Your task to perform on an android device: Go to Wikipedia Image 0: 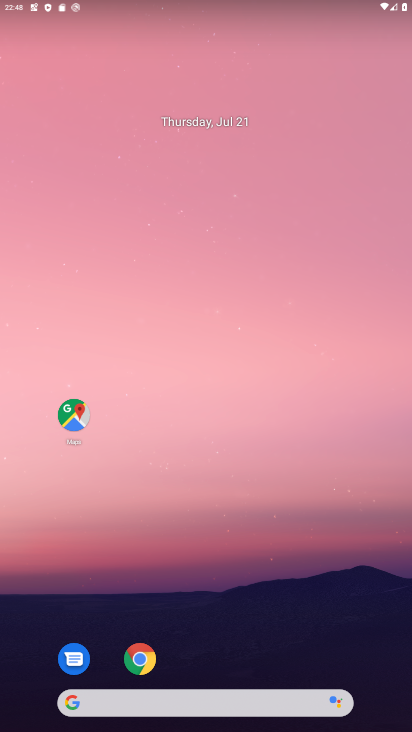
Step 0: drag from (270, 572) to (129, 34)
Your task to perform on an android device: Go to Wikipedia Image 1: 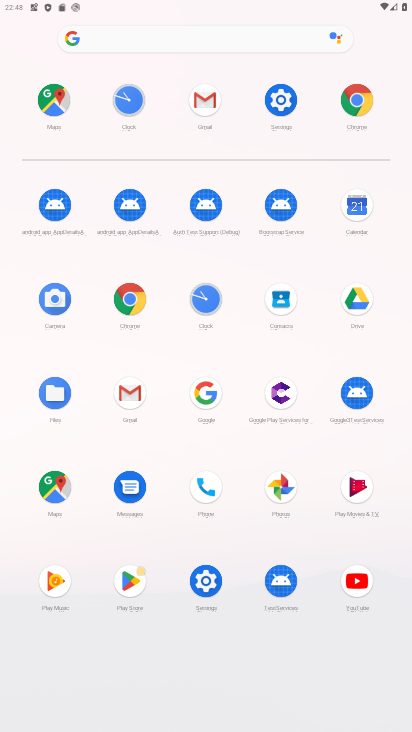
Step 1: click (356, 96)
Your task to perform on an android device: Go to Wikipedia Image 2: 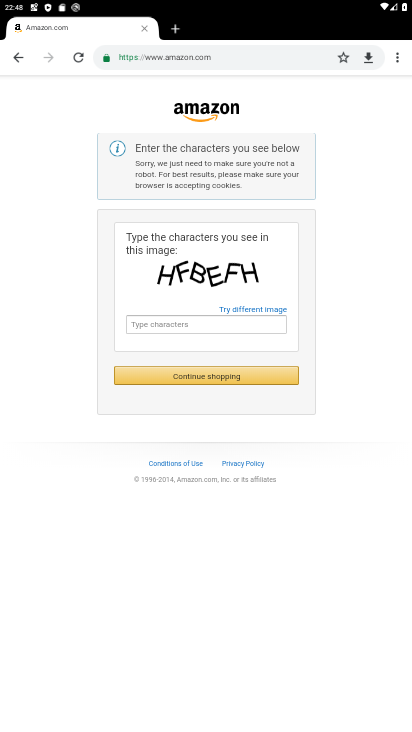
Step 2: click (219, 67)
Your task to perform on an android device: Go to Wikipedia Image 3: 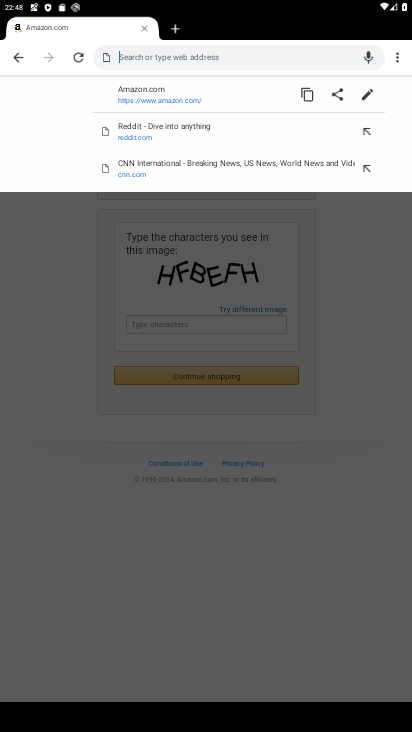
Step 3: type "wikipedia"
Your task to perform on an android device: Go to Wikipedia Image 4: 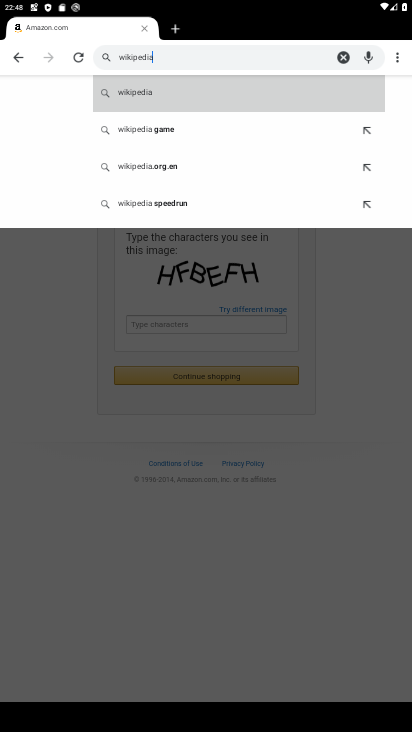
Step 4: click (201, 95)
Your task to perform on an android device: Go to Wikipedia Image 5: 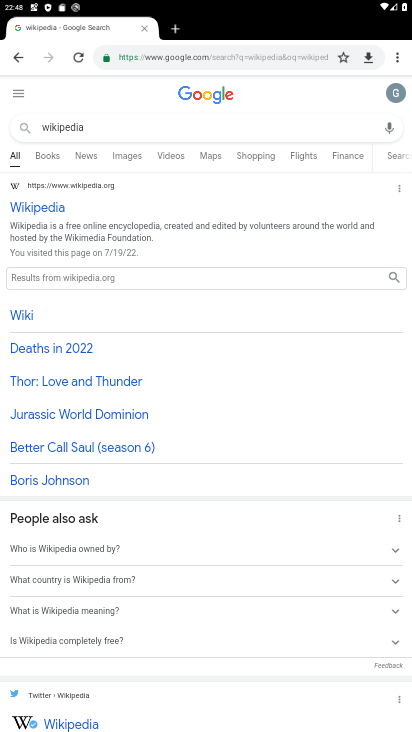
Step 5: click (44, 203)
Your task to perform on an android device: Go to Wikipedia Image 6: 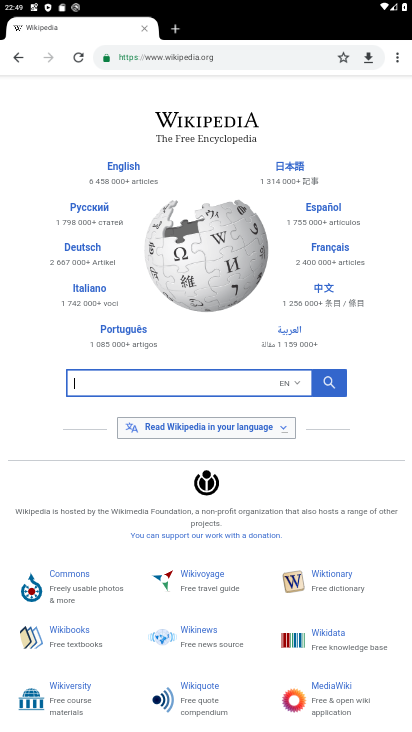
Step 6: task complete